Your task to perform on an android device: turn on javascript in the chrome app Image 0: 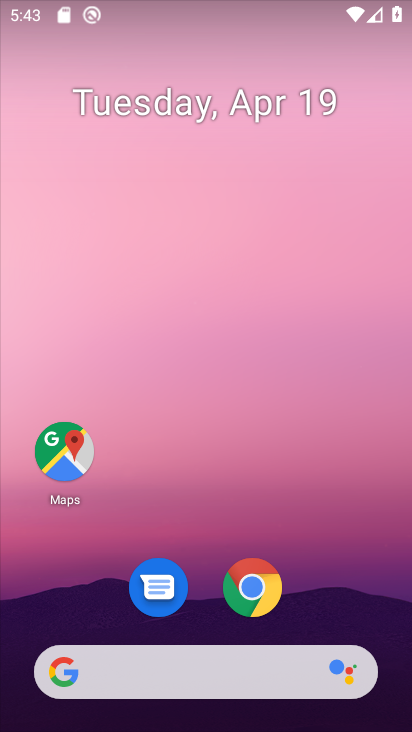
Step 0: click (259, 595)
Your task to perform on an android device: turn on javascript in the chrome app Image 1: 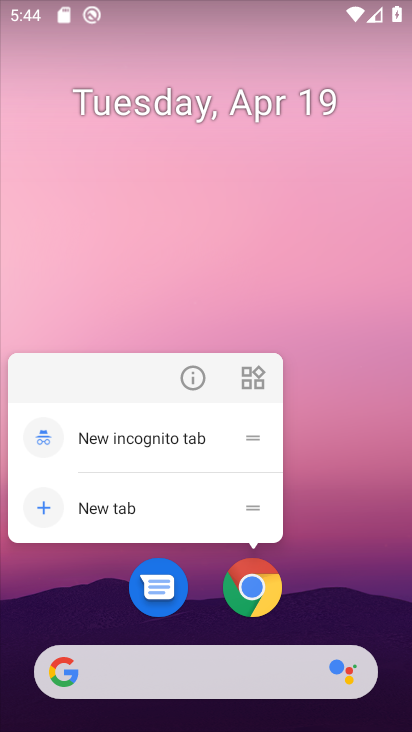
Step 1: click (263, 592)
Your task to perform on an android device: turn on javascript in the chrome app Image 2: 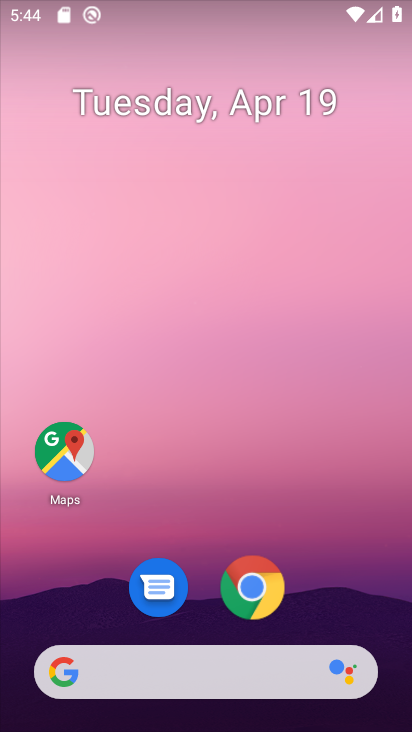
Step 2: click (258, 582)
Your task to perform on an android device: turn on javascript in the chrome app Image 3: 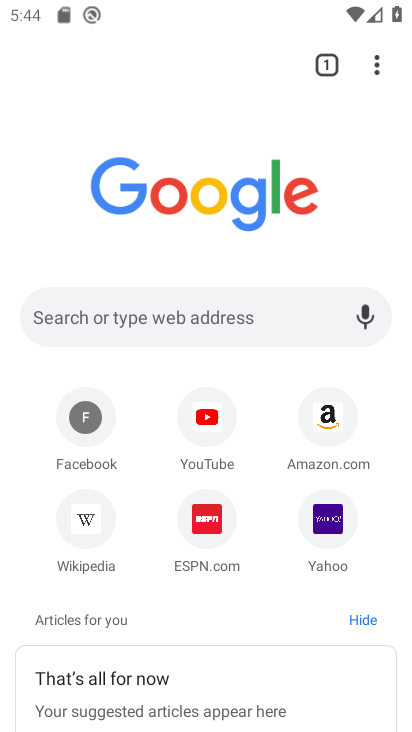
Step 3: click (377, 70)
Your task to perform on an android device: turn on javascript in the chrome app Image 4: 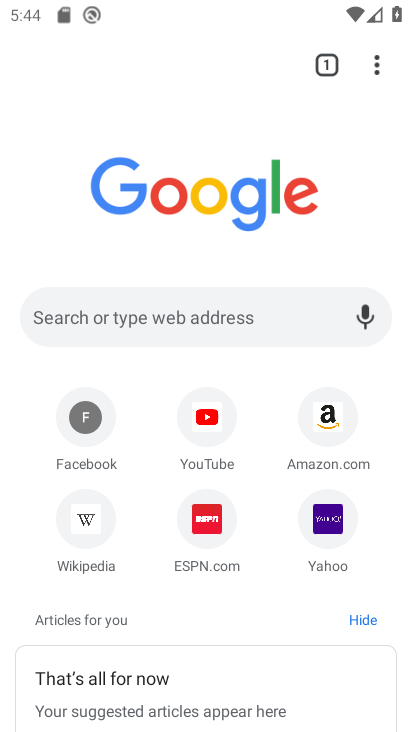
Step 4: click (379, 59)
Your task to perform on an android device: turn on javascript in the chrome app Image 5: 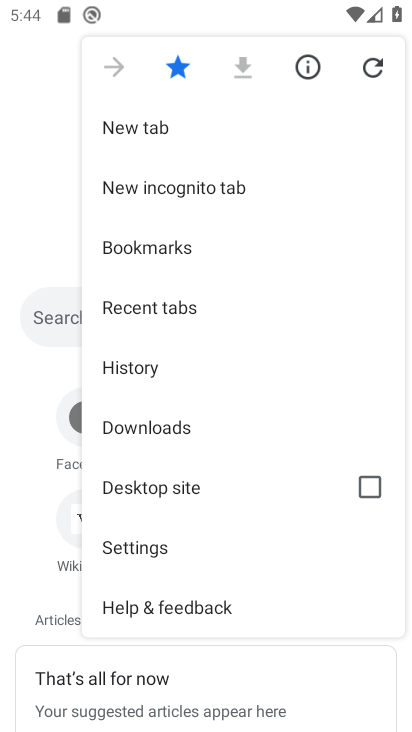
Step 5: drag from (242, 335) to (281, 57)
Your task to perform on an android device: turn on javascript in the chrome app Image 6: 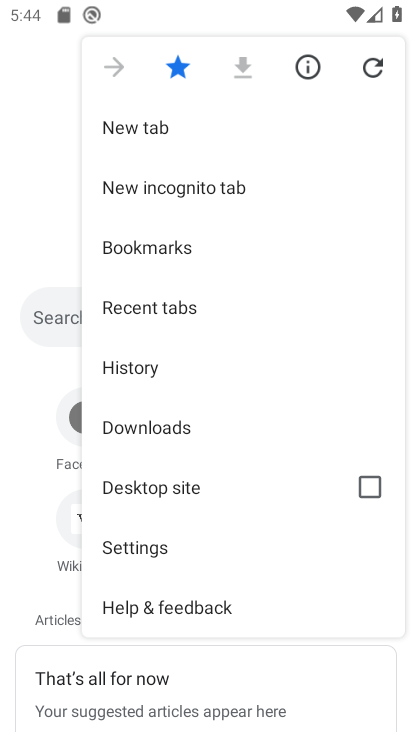
Step 6: click (161, 549)
Your task to perform on an android device: turn on javascript in the chrome app Image 7: 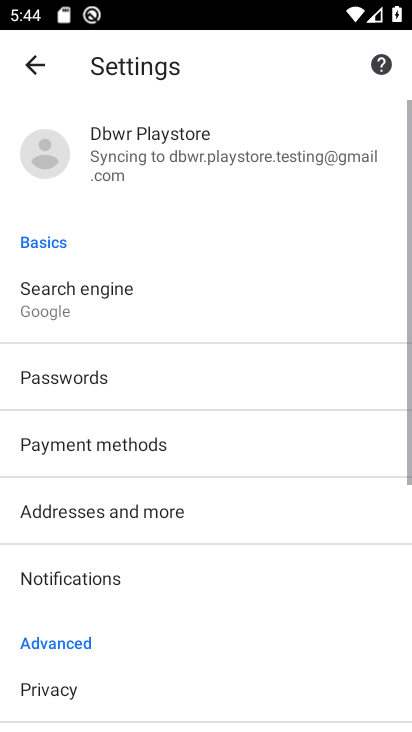
Step 7: drag from (261, 569) to (295, 229)
Your task to perform on an android device: turn on javascript in the chrome app Image 8: 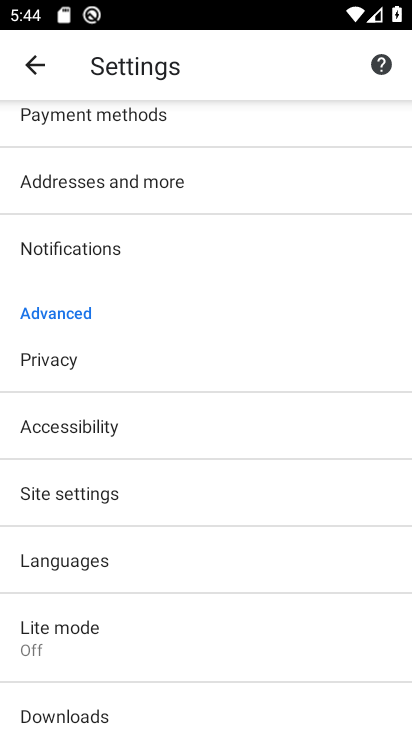
Step 8: drag from (167, 577) to (236, 121)
Your task to perform on an android device: turn on javascript in the chrome app Image 9: 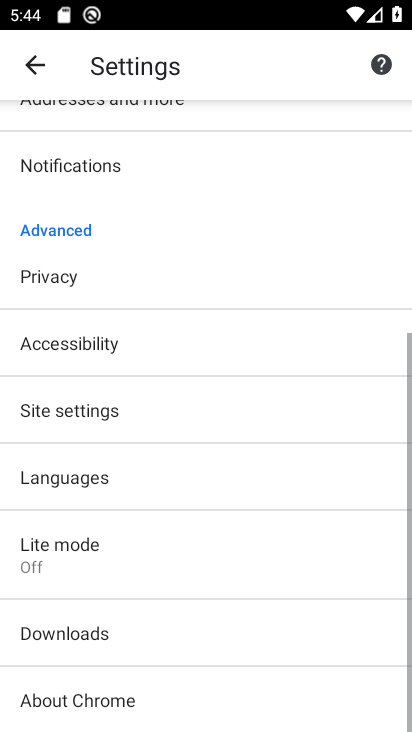
Step 9: drag from (250, 607) to (333, 204)
Your task to perform on an android device: turn on javascript in the chrome app Image 10: 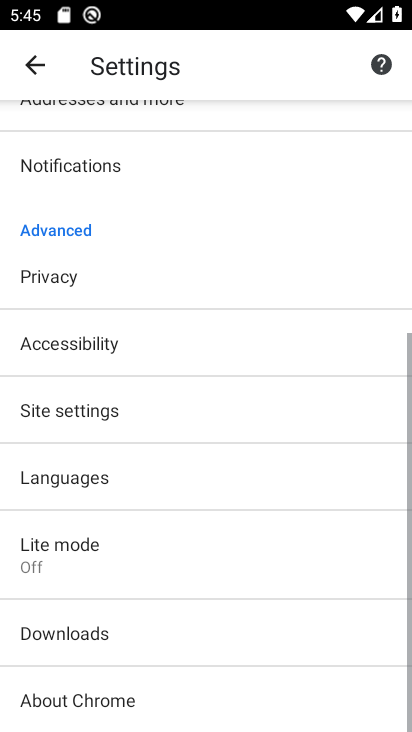
Step 10: drag from (339, 230) to (284, 675)
Your task to perform on an android device: turn on javascript in the chrome app Image 11: 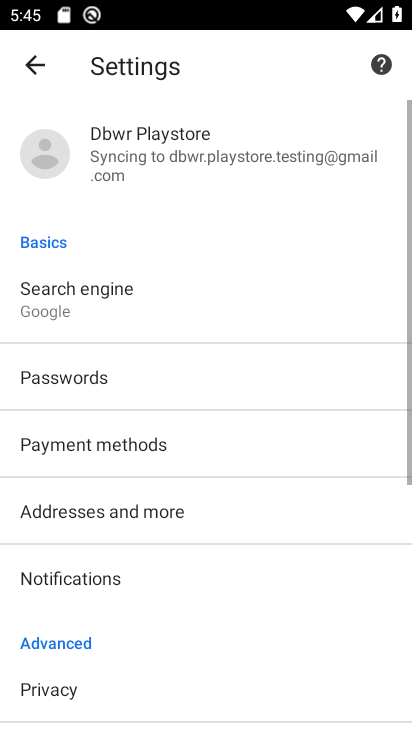
Step 11: drag from (132, 396) to (235, 139)
Your task to perform on an android device: turn on javascript in the chrome app Image 12: 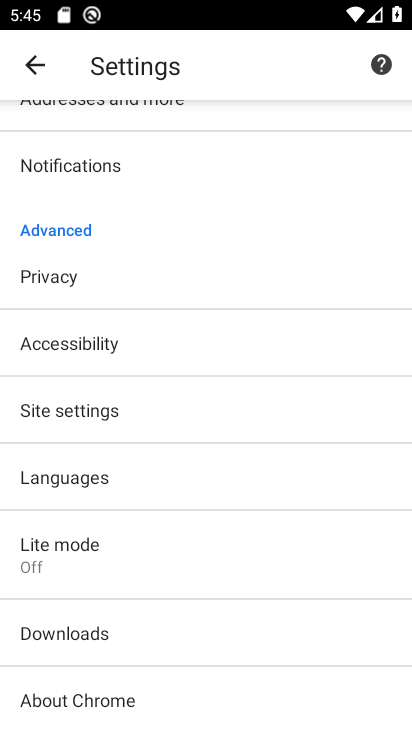
Step 12: click (99, 419)
Your task to perform on an android device: turn on javascript in the chrome app Image 13: 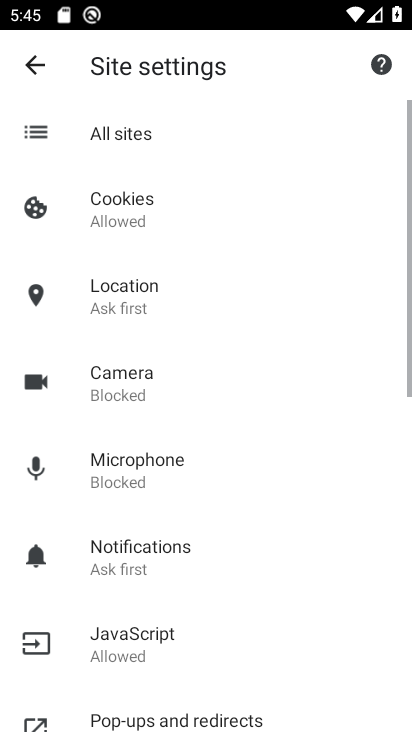
Step 13: drag from (291, 145) to (294, 90)
Your task to perform on an android device: turn on javascript in the chrome app Image 14: 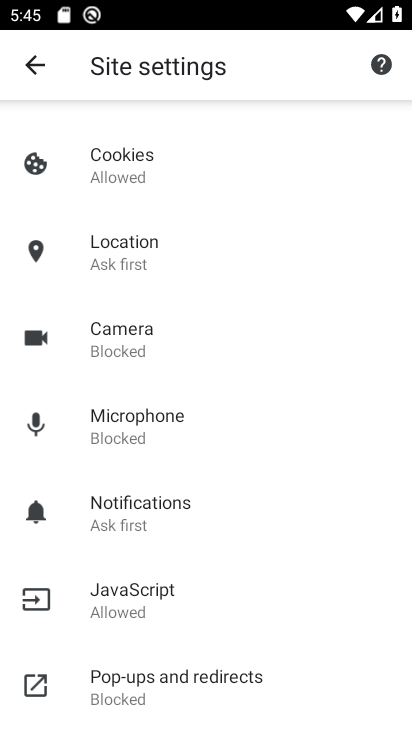
Step 14: click (131, 596)
Your task to perform on an android device: turn on javascript in the chrome app Image 15: 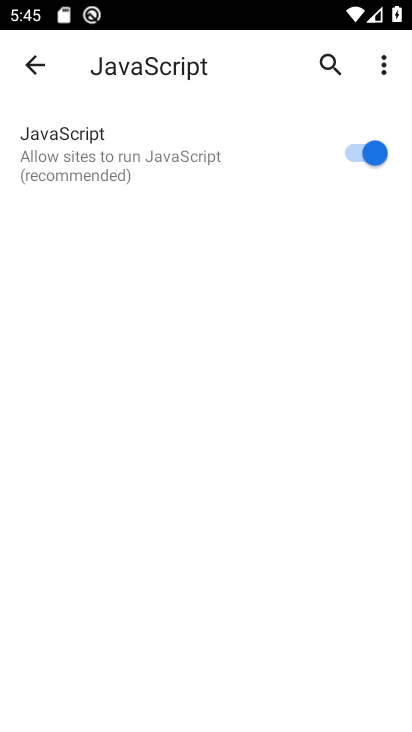
Step 15: task complete